Your task to perform on an android device: install app "NewsBreak: Local News & Alerts" Image 0: 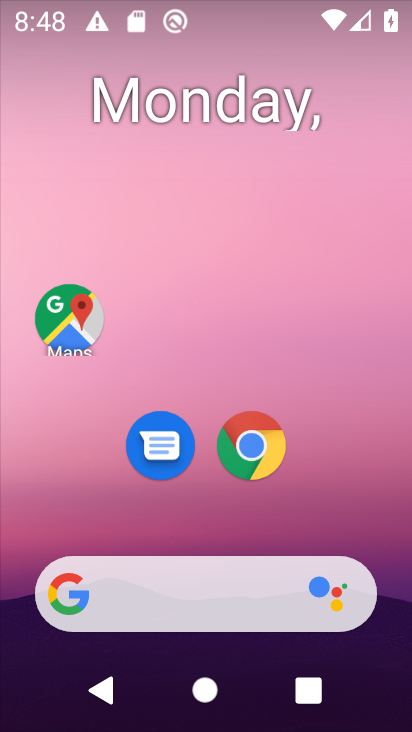
Step 0: drag from (401, 576) to (241, 62)
Your task to perform on an android device: install app "NewsBreak: Local News & Alerts" Image 1: 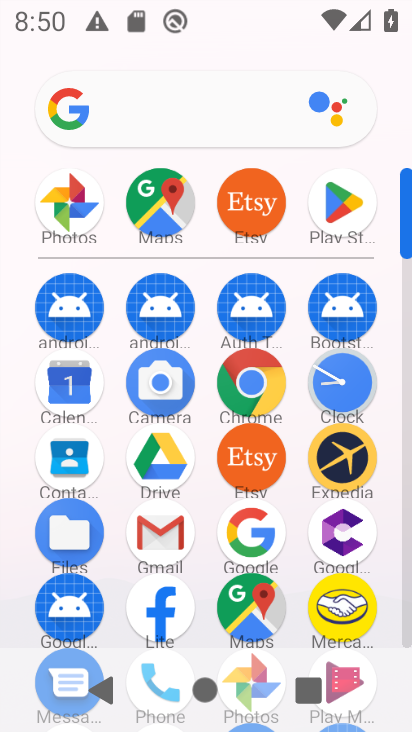
Step 1: click (342, 209)
Your task to perform on an android device: install app "NewsBreak: Local News & Alerts" Image 2: 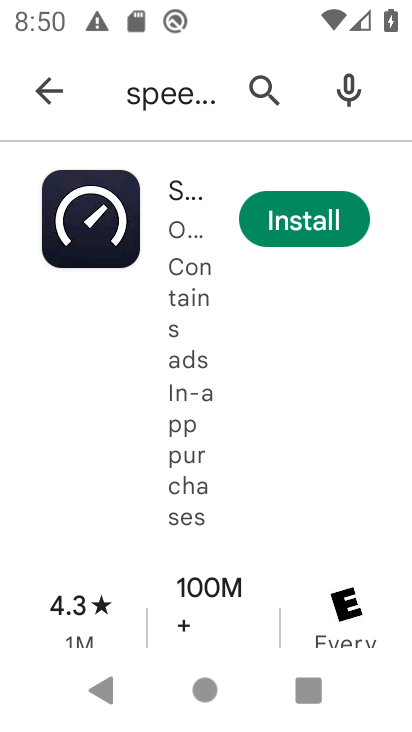
Step 2: press back button
Your task to perform on an android device: install app "NewsBreak: Local News & Alerts" Image 3: 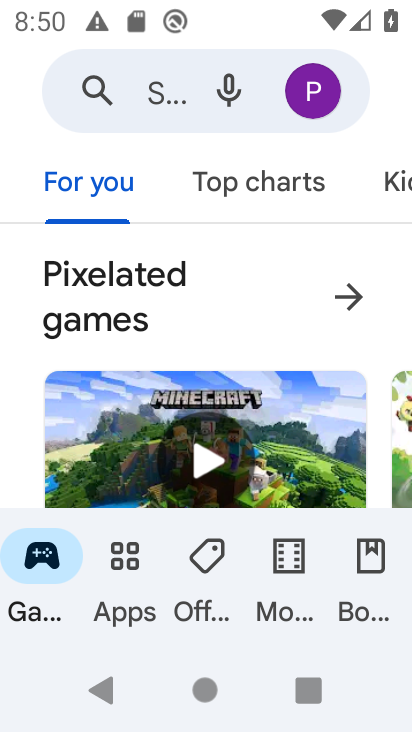
Step 3: click (174, 93)
Your task to perform on an android device: install app "NewsBreak: Local News & Alerts" Image 4: 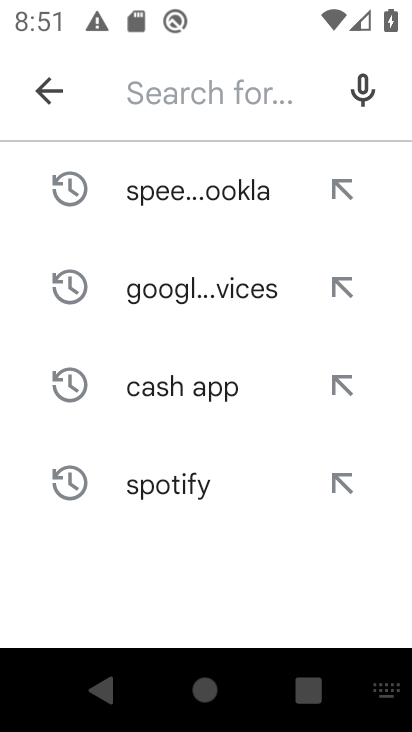
Step 4: type "NewsBreak: Local News & Alerts"
Your task to perform on an android device: install app "NewsBreak: Local News & Alerts" Image 5: 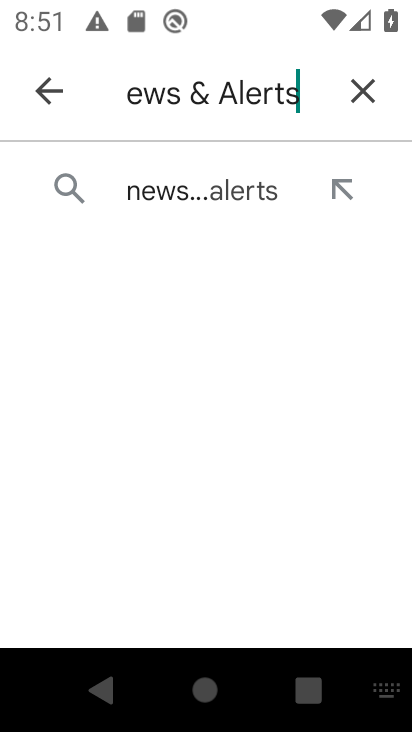
Step 5: click (254, 200)
Your task to perform on an android device: install app "NewsBreak: Local News & Alerts" Image 6: 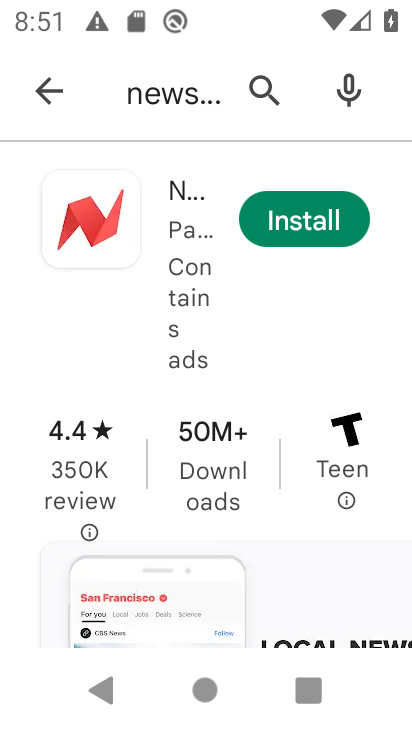
Step 6: click (312, 217)
Your task to perform on an android device: install app "NewsBreak: Local News & Alerts" Image 7: 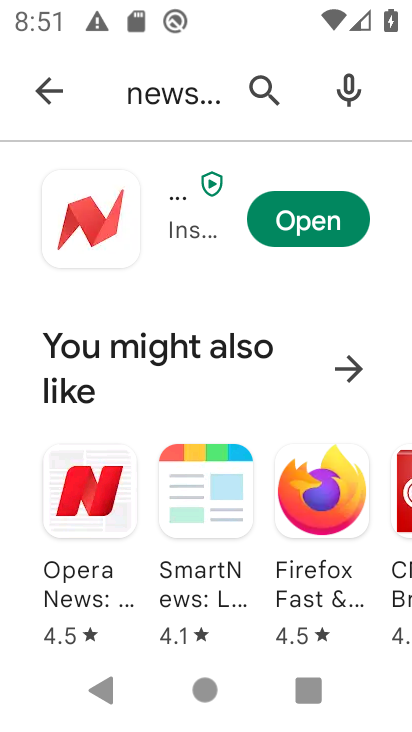
Step 7: task complete